Your task to perform on an android device: turn off improve location accuracy Image 0: 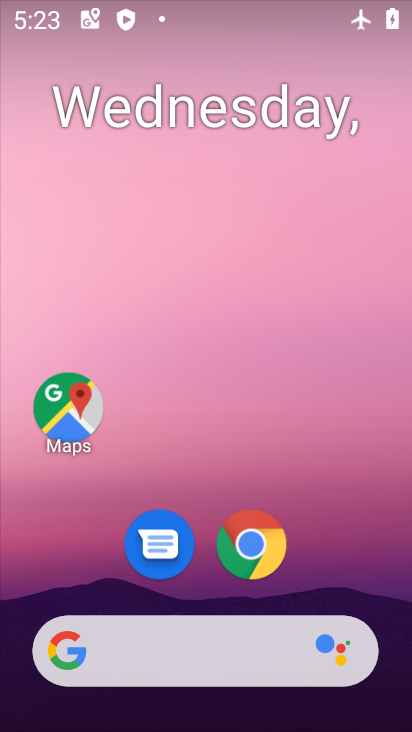
Step 0: drag from (398, 648) to (352, 225)
Your task to perform on an android device: turn off improve location accuracy Image 1: 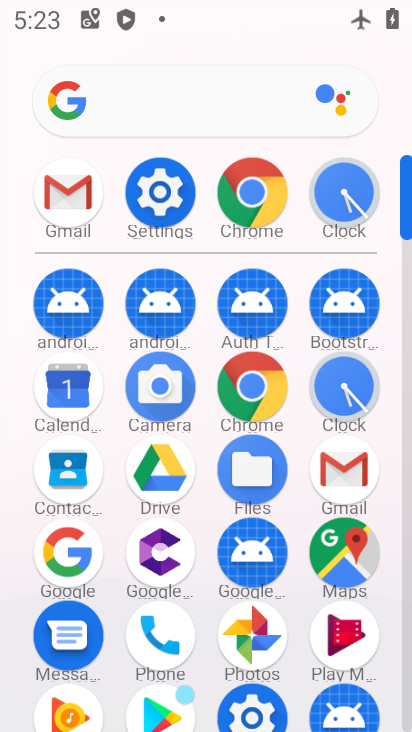
Step 1: click (160, 205)
Your task to perform on an android device: turn off improve location accuracy Image 2: 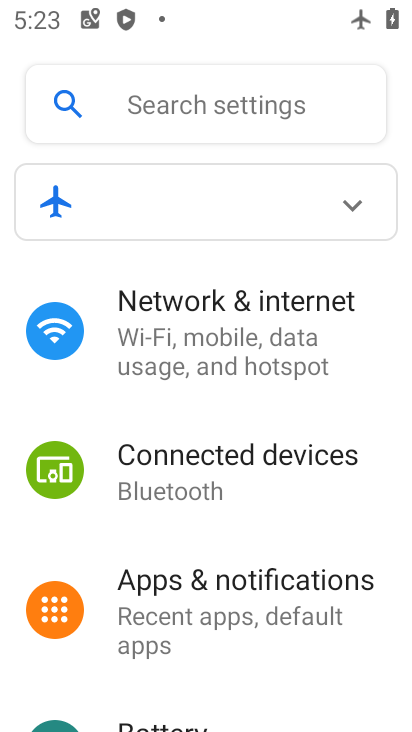
Step 2: drag from (221, 659) to (235, 358)
Your task to perform on an android device: turn off improve location accuracy Image 3: 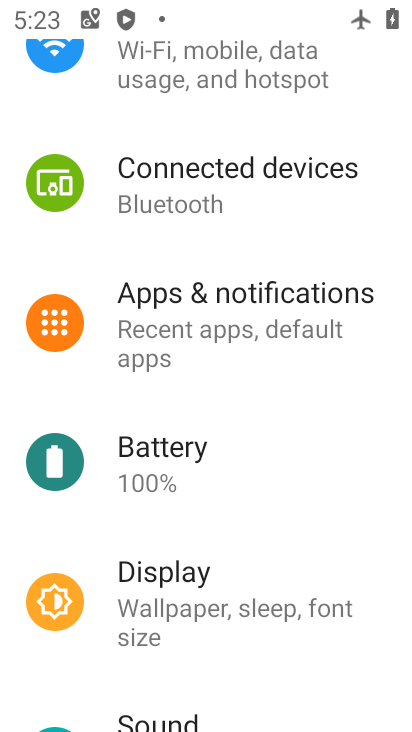
Step 3: drag from (265, 640) to (274, 429)
Your task to perform on an android device: turn off improve location accuracy Image 4: 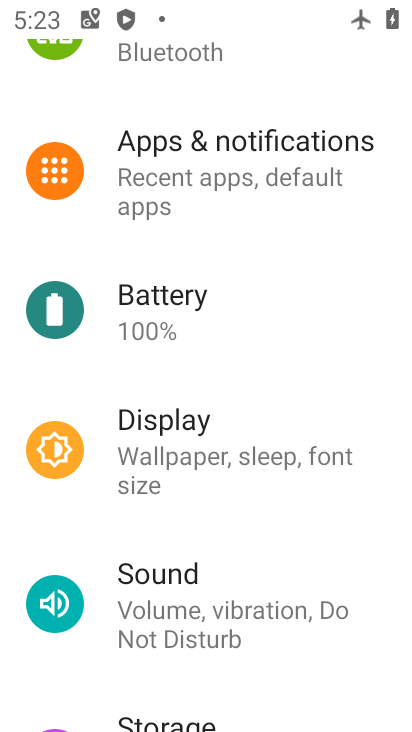
Step 4: drag from (242, 646) to (264, 293)
Your task to perform on an android device: turn off improve location accuracy Image 5: 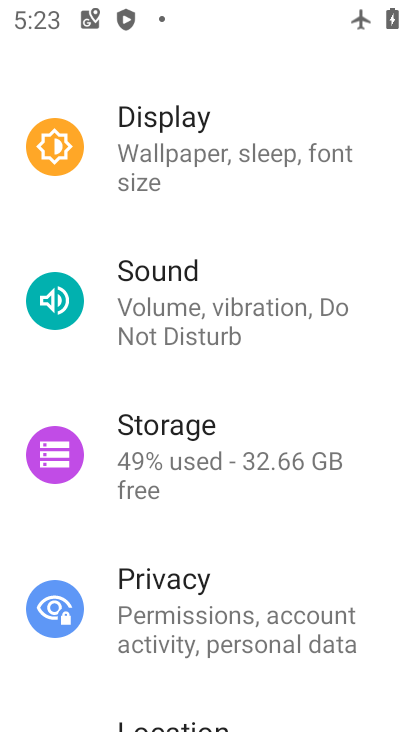
Step 5: drag from (207, 604) to (226, 322)
Your task to perform on an android device: turn off improve location accuracy Image 6: 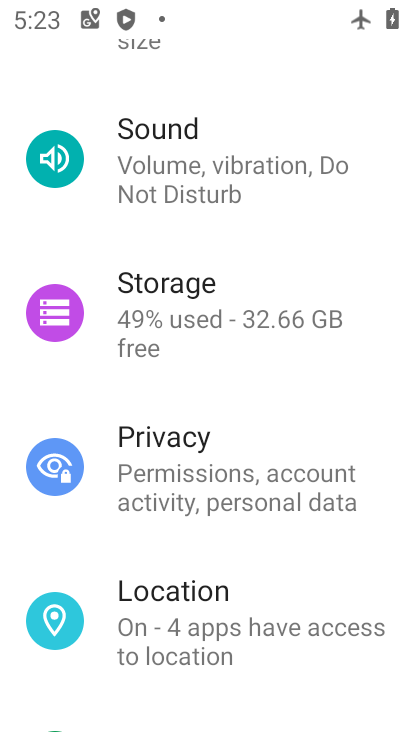
Step 6: click (156, 610)
Your task to perform on an android device: turn off improve location accuracy Image 7: 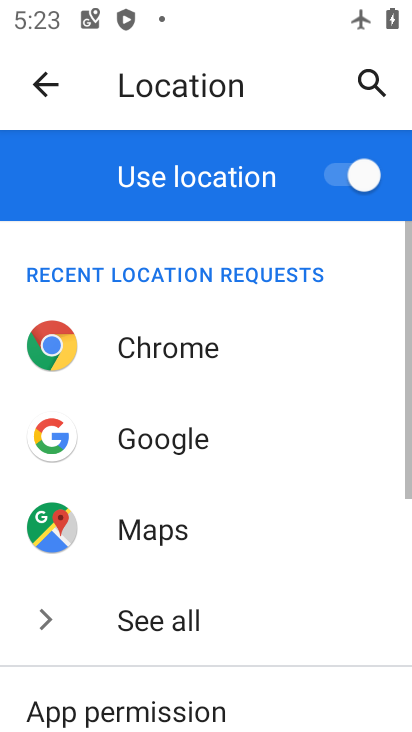
Step 7: drag from (298, 657) to (272, 212)
Your task to perform on an android device: turn off improve location accuracy Image 8: 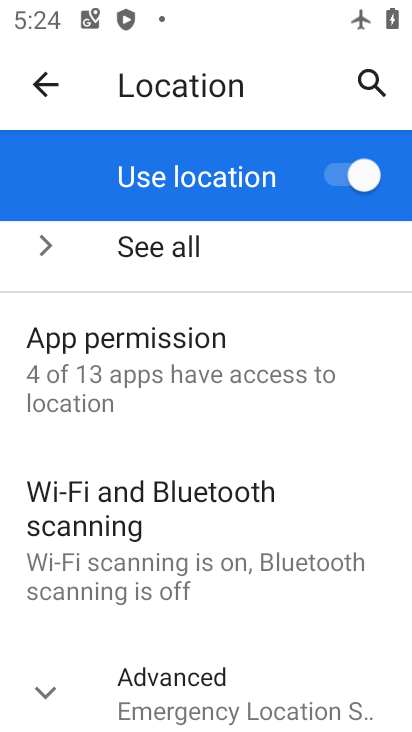
Step 8: click (36, 691)
Your task to perform on an android device: turn off improve location accuracy Image 9: 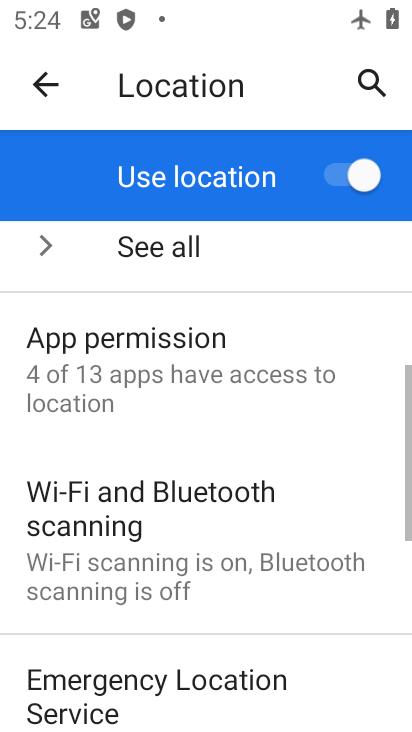
Step 9: task complete